Your task to perform on an android device: Search for sushi restaurants on Maps Image 0: 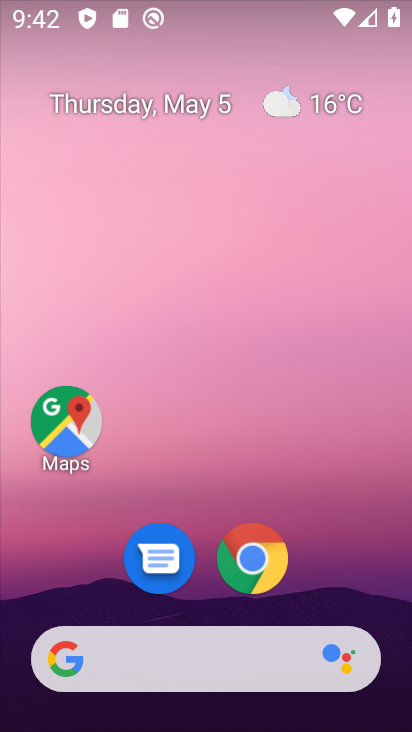
Step 0: click (65, 425)
Your task to perform on an android device: Search for sushi restaurants on Maps Image 1: 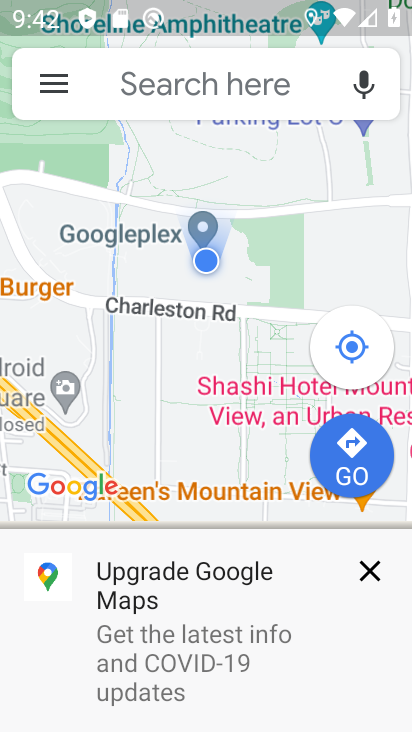
Step 1: click (182, 95)
Your task to perform on an android device: Search for sushi restaurants on Maps Image 2: 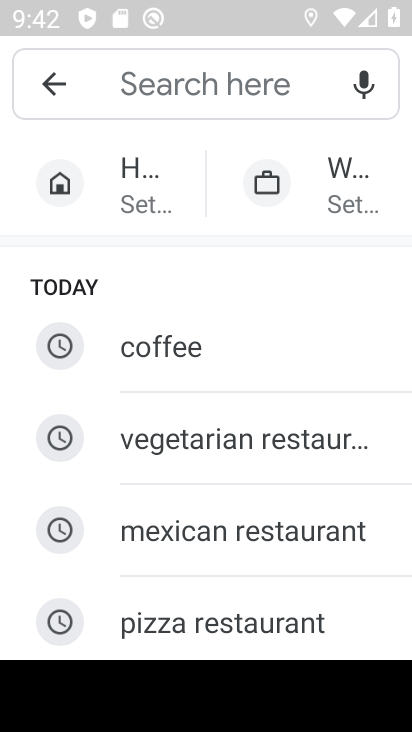
Step 2: type "sushi restaurants "
Your task to perform on an android device: Search for sushi restaurants on Maps Image 3: 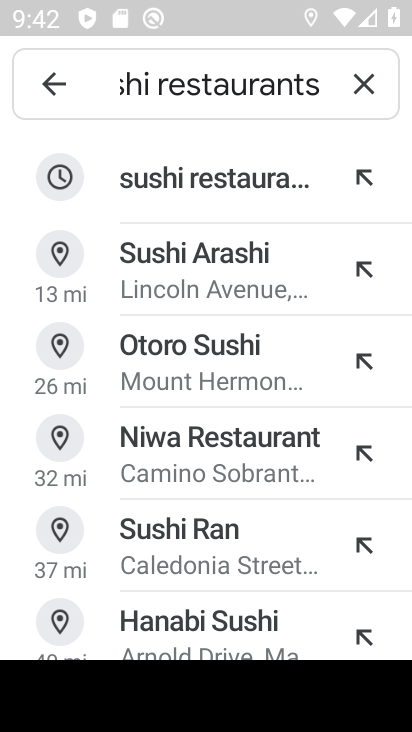
Step 3: click (160, 179)
Your task to perform on an android device: Search for sushi restaurants on Maps Image 4: 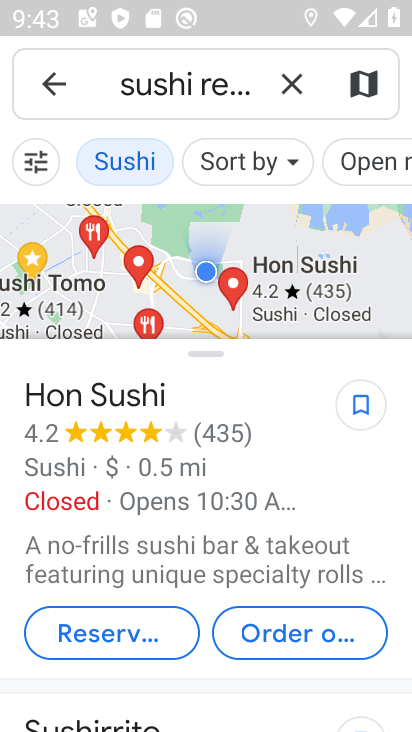
Step 4: task complete